Your task to perform on an android device: What's the weather? Image 0: 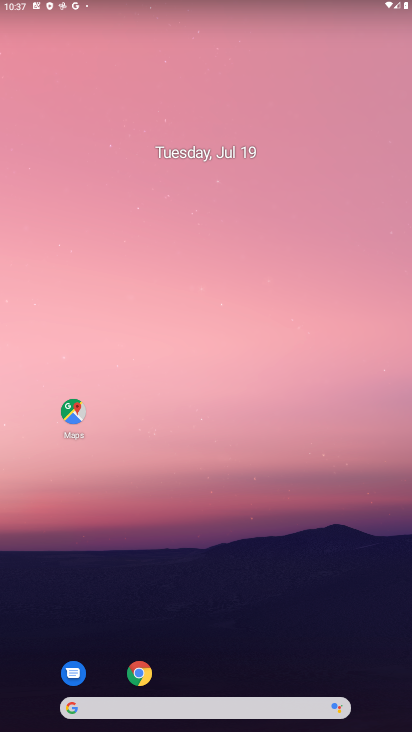
Step 0: click (216, 704)
Your task to perform on an android device: What's the weather? Image 1: 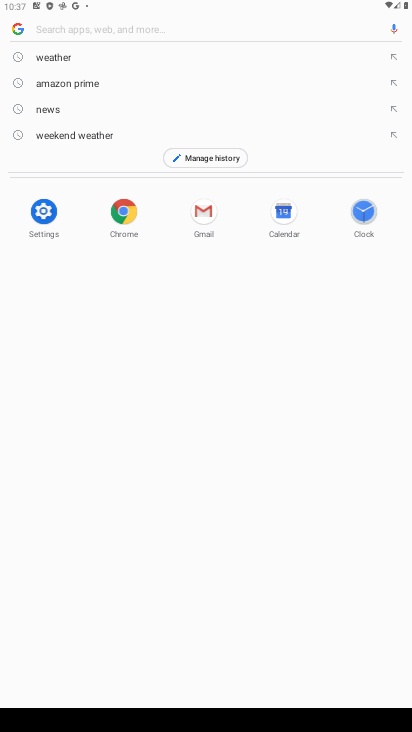
Step 1: click (63, 57)
Your task to perform on an android device: What's the weather? Image 2: 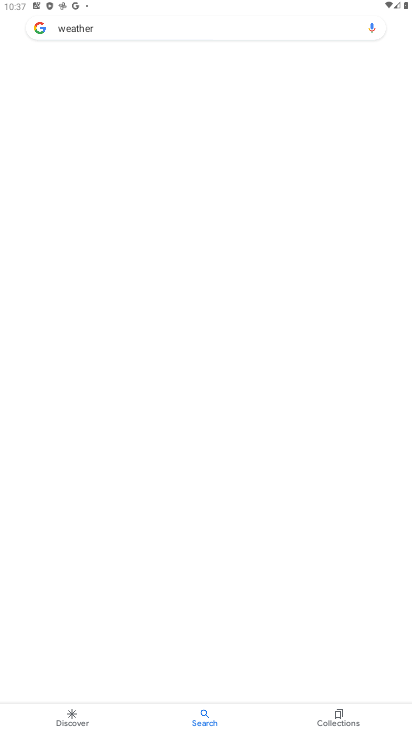
Step 2: task complete